Your task to perform on an android device: Open Reddit.com Image 0: 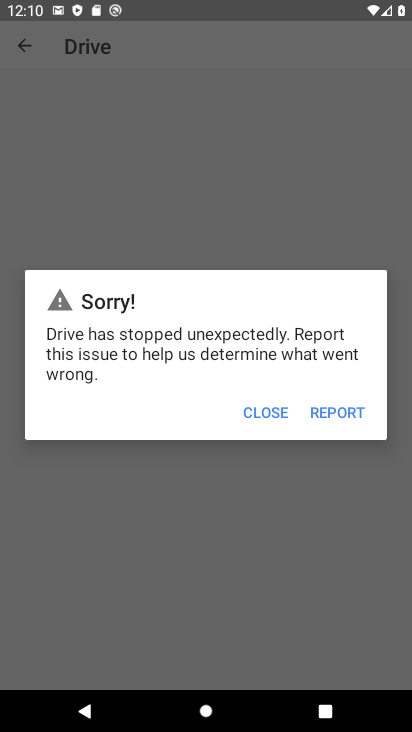
Step 0: press home button
Your task to perform on an android device: Open Reddit.com Image 1: 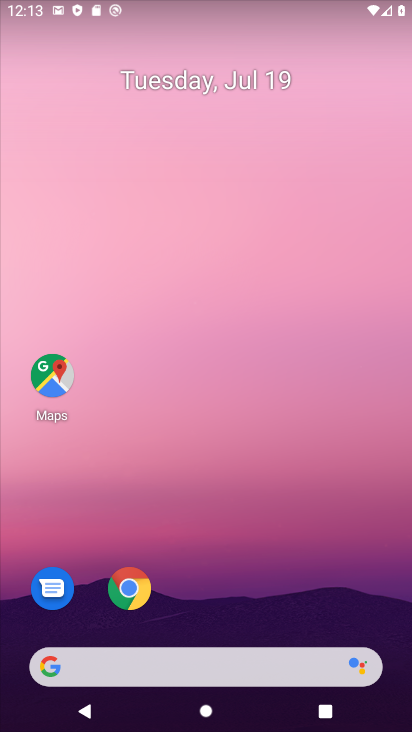
Step 1: drag from (348, 608) to (209, 13)
Your task to perform on an android device: Open Reddit.com Image 2: 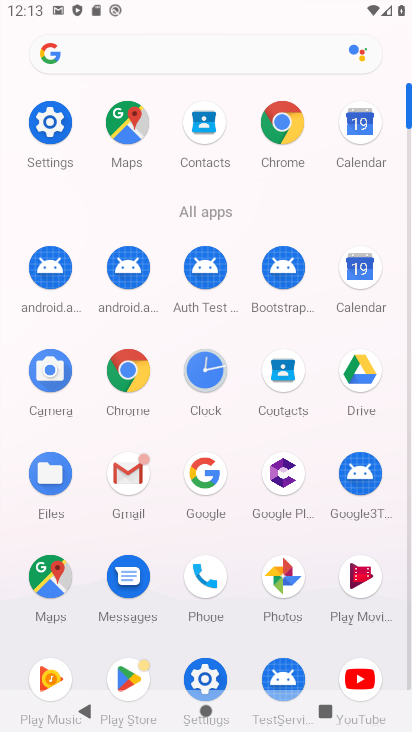
Step 2: click (207, 468)
Your task to perform on an android device: Open Reddit.com Image 3: 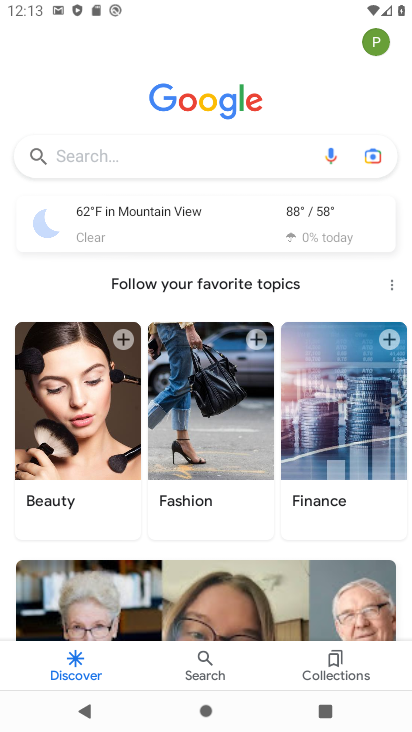
Step 3: click (106, 161)
Your task to perform on an android device: Open Reddit.com Image 4: 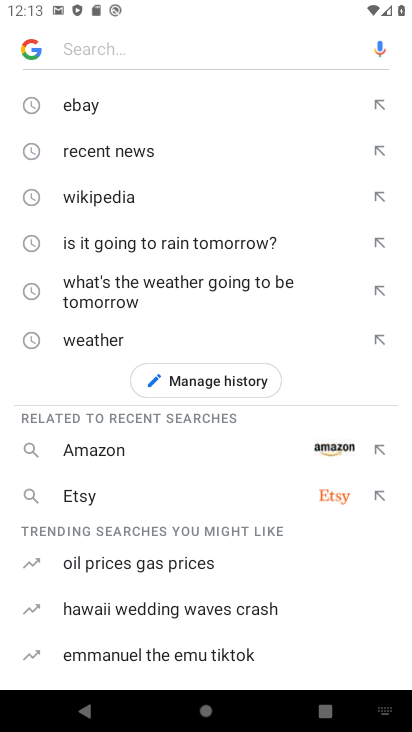
Step 4: type "Reddit.com"
Your task to perform on an android device: Open Reddit.com Image 5: 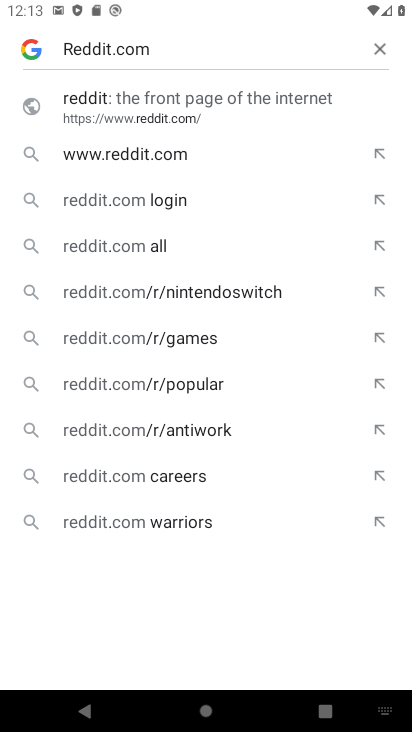
Step 5: click (151, 117)
Your task to perform on an android device: Open Reddit.com Image 6: 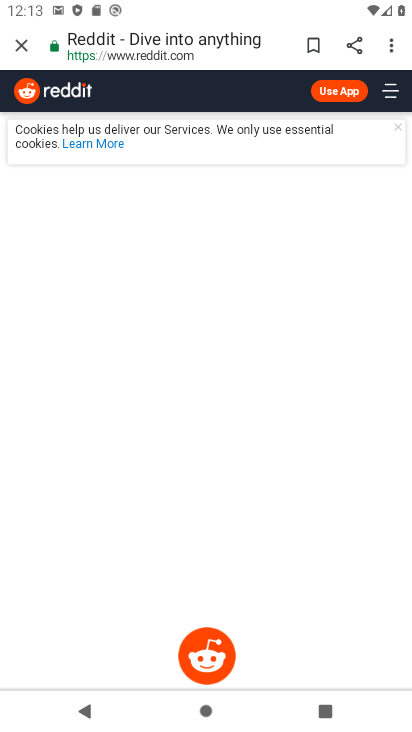
Step 6: task complete